Your task to perform on an android device: change timer sound Image 0: 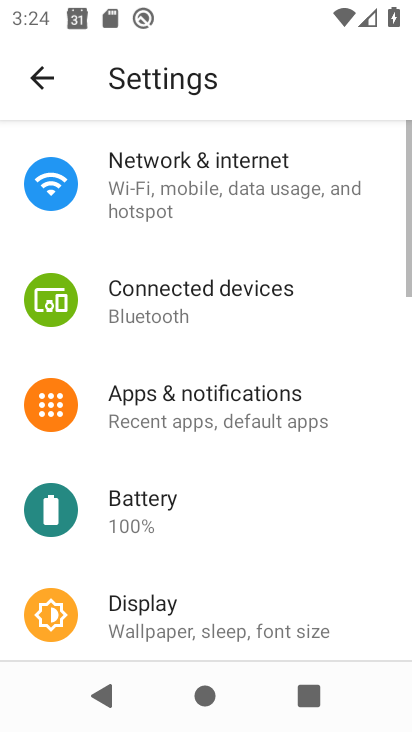
Step 0: press home button
Your task to perform on an android device: change timer sound Image 1: 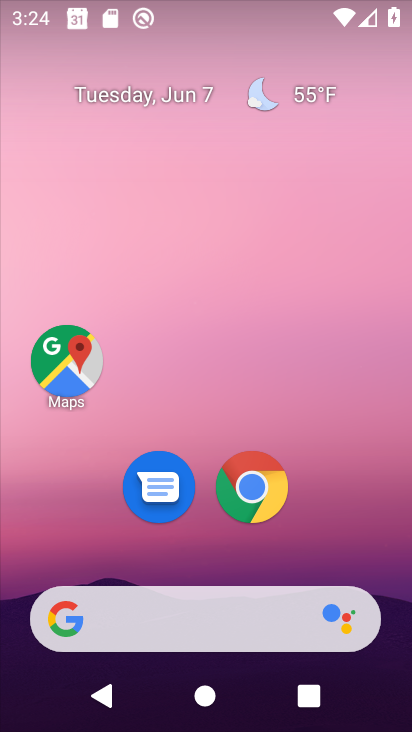
Step 1: drag from (315, 552) to (356, 80)
Your task to perform on an android device: change timer sound Image 2: 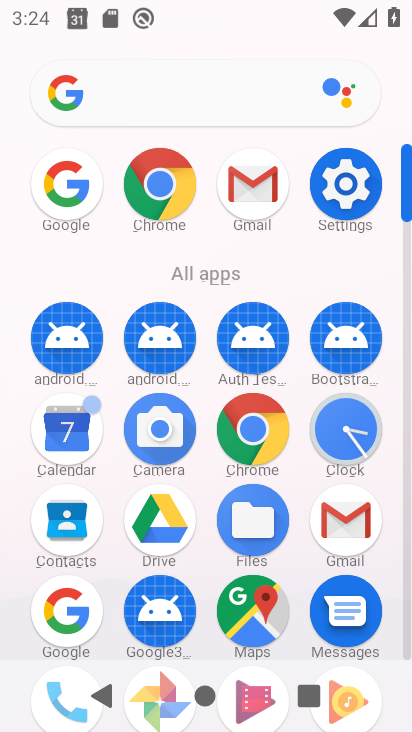
Step 2: click (339, 434)
Your task to perform on an android device: change timer sound Image 3: 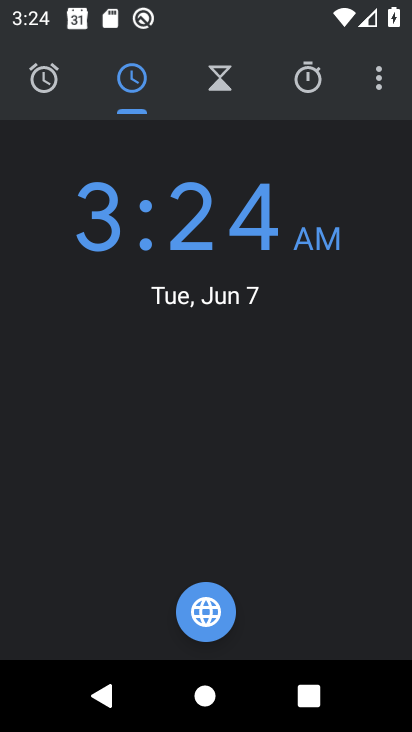
Step 3: click (370, 85)
Your task to perform on an android device: change timer sound Image 4: 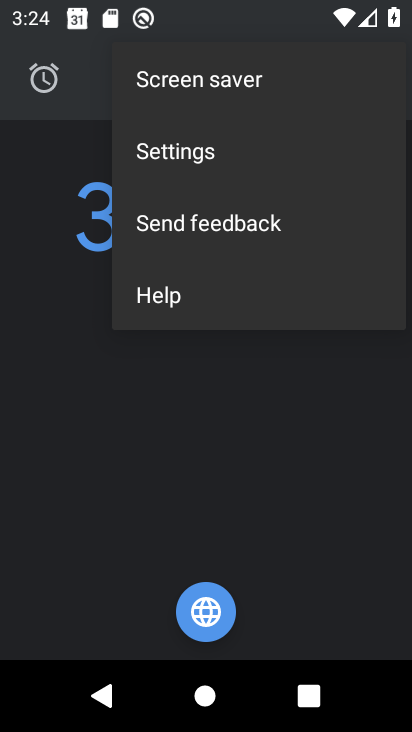
Step 4: click (184, 167)
Your task to perform on an android device: change timer sound Image 5: 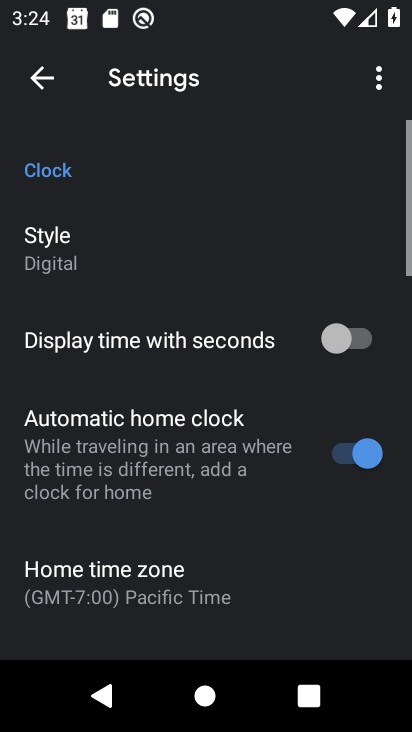
Step 5: drag from (115, 510) to (146, 26)
Your task to perform on an android device: change timer sound Image 6: 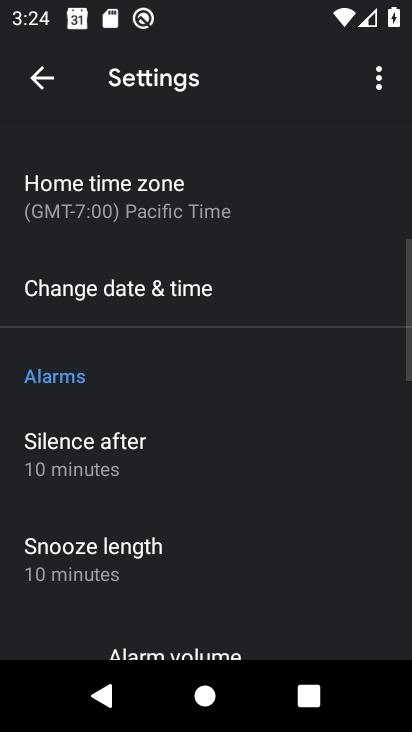
Step 6: drag from (106, 491) to (96, 60)
Your task to perform on an android device: change timer sound Image 7: 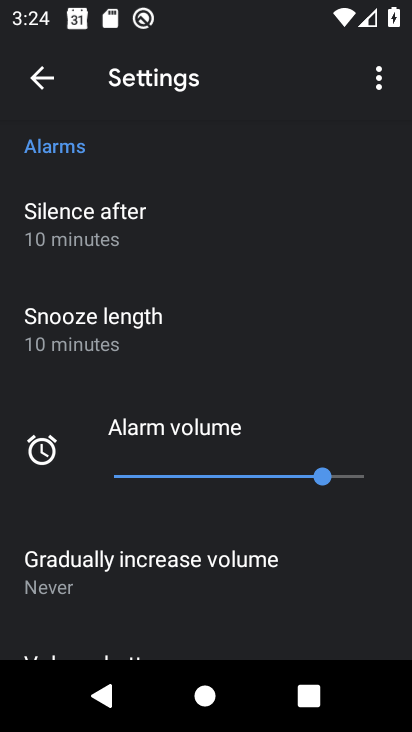
Step 7: drag from (156, 595) to (134, 98)
Your task to perform on an android device: change timer sound Image 8: 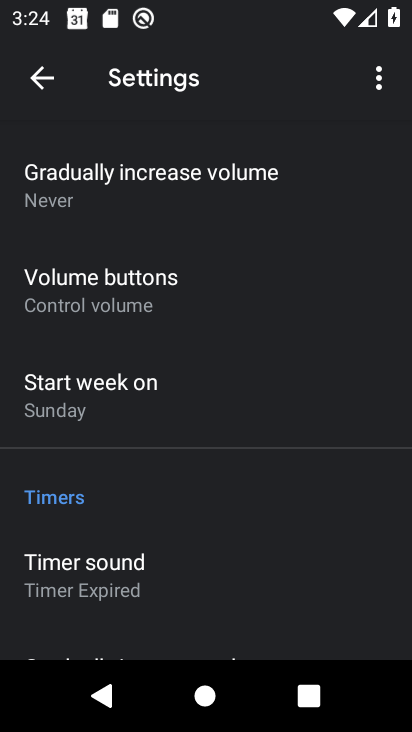
Step 8: click (117, 540)
Your task to perform on an android device: change timer sound Image 9: 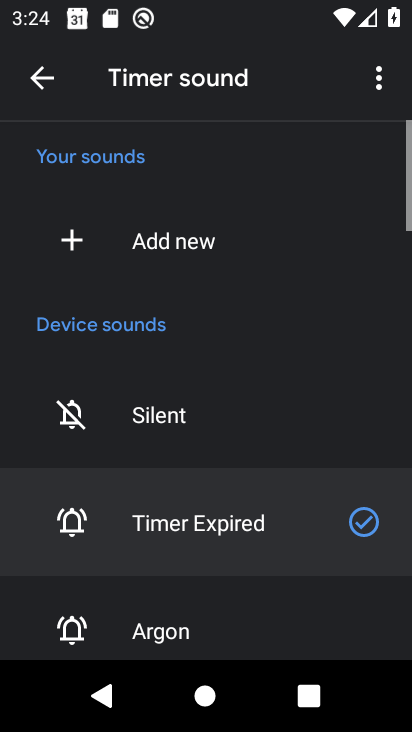
Step 9: click (167, 608)
Your task to perform on an android device: change timer sound Image 10: 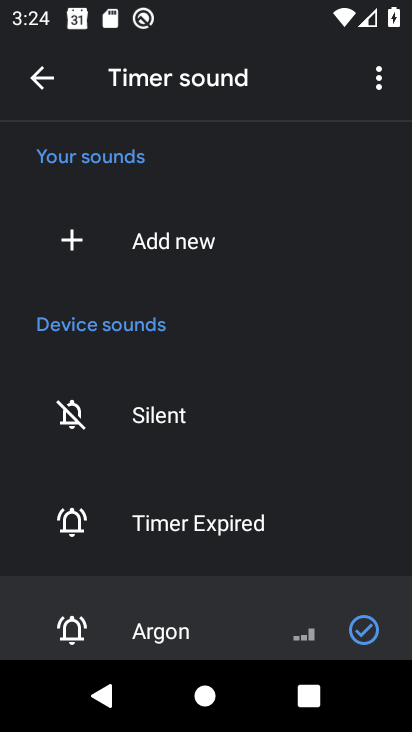
Step 10: task complete